Your task to perform on an android device: Go to calendar. Show me events next week Image 0: 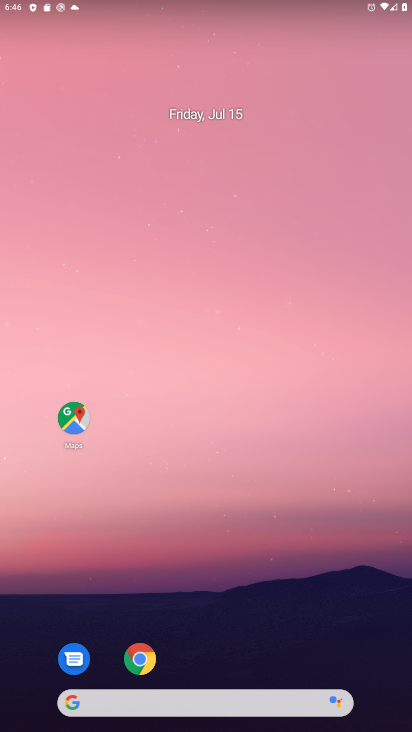
Step 0: drag from (383, 681) to (319, 138)
Your task to perform on an android device: Go to calendar. Show me events next week Image 1: 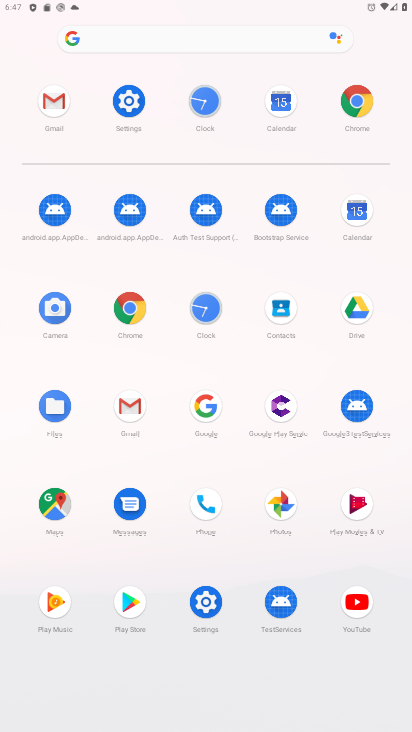
Step 1: click (354, 211)
Your task to perform on an android device: Go to calendar. Show me events next week Image 2: 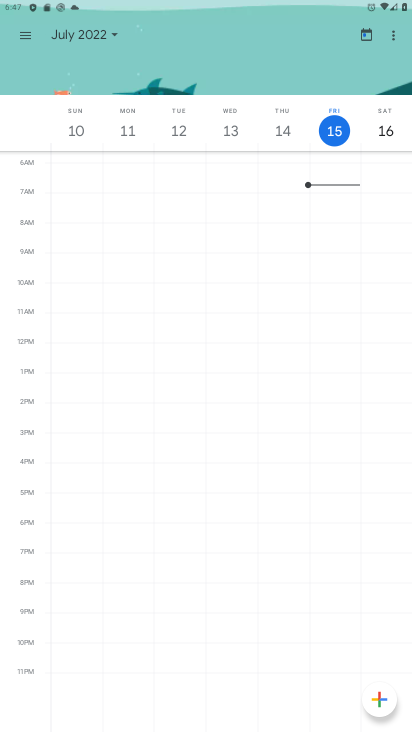
Step 2: click (106, 30)
Your task to perform on an android device: Go to calendar. Show me events next week Image 3: 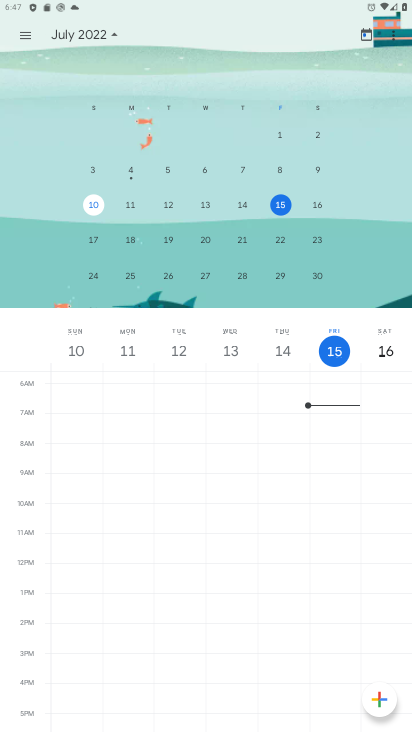
Step 3: click (98, 240)
Your task to perform on an android device: Go to calendar. Show me events next week Image 4: 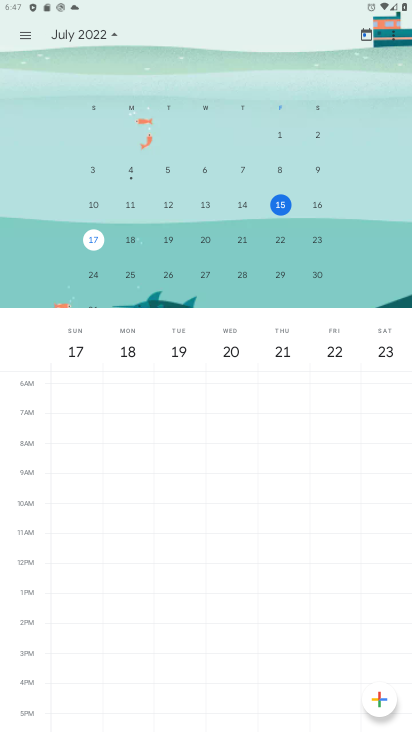
Step 4: task complete